Your task to perform on an android device: Go to Google maps Image 0: 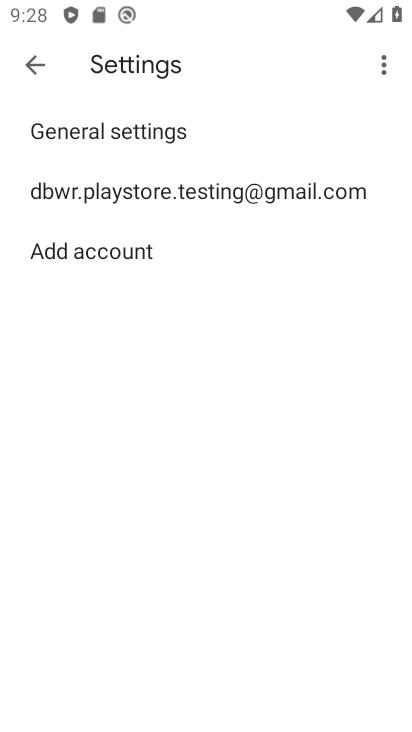
Step 0: press back button
Your task to perform on an android device: Go to Google maps Image 1: 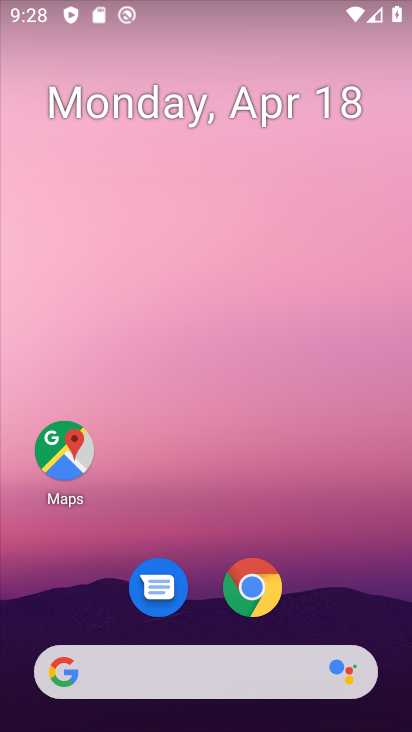
Step 1: drag from (217, 535) to (222, 142)
Your task to perform on an android device: Go to Google maps Image 2: 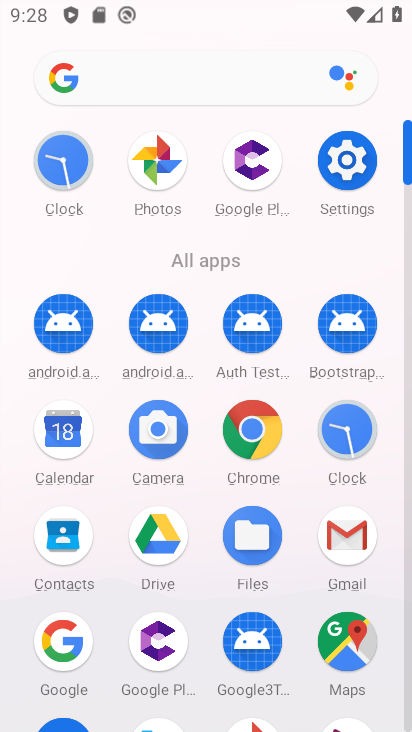
Step 2: click (349, 643)
Your task to perform on an android device: Go to Google maps Image 3: 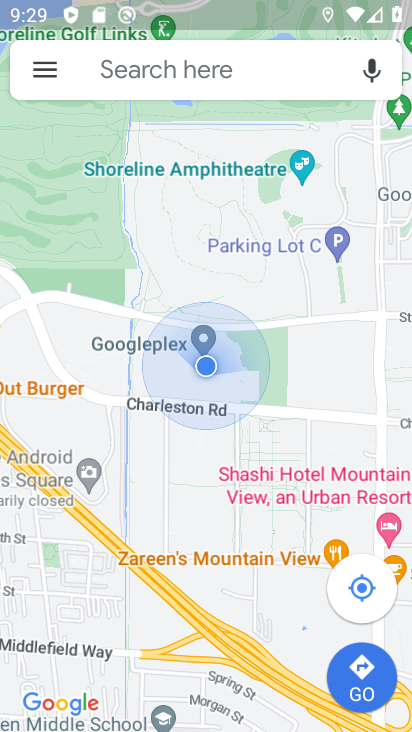
Step 3: task complete